Your task to perform on an android device: create a new album in the google photos Image 0: 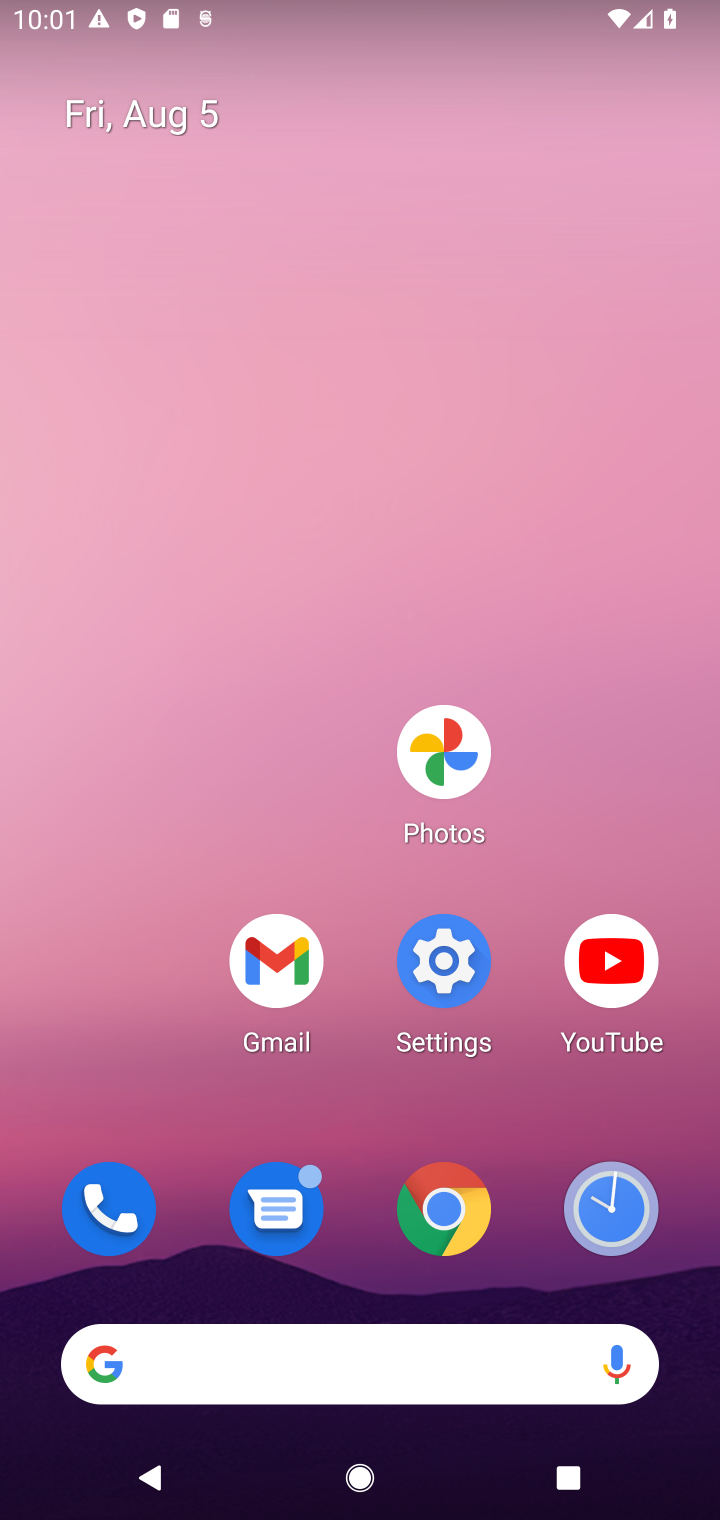
Step 0: drag from (394, 1189) to (446, 374)
Your task to perform on an android device: create a new album in the google photos Image 1: 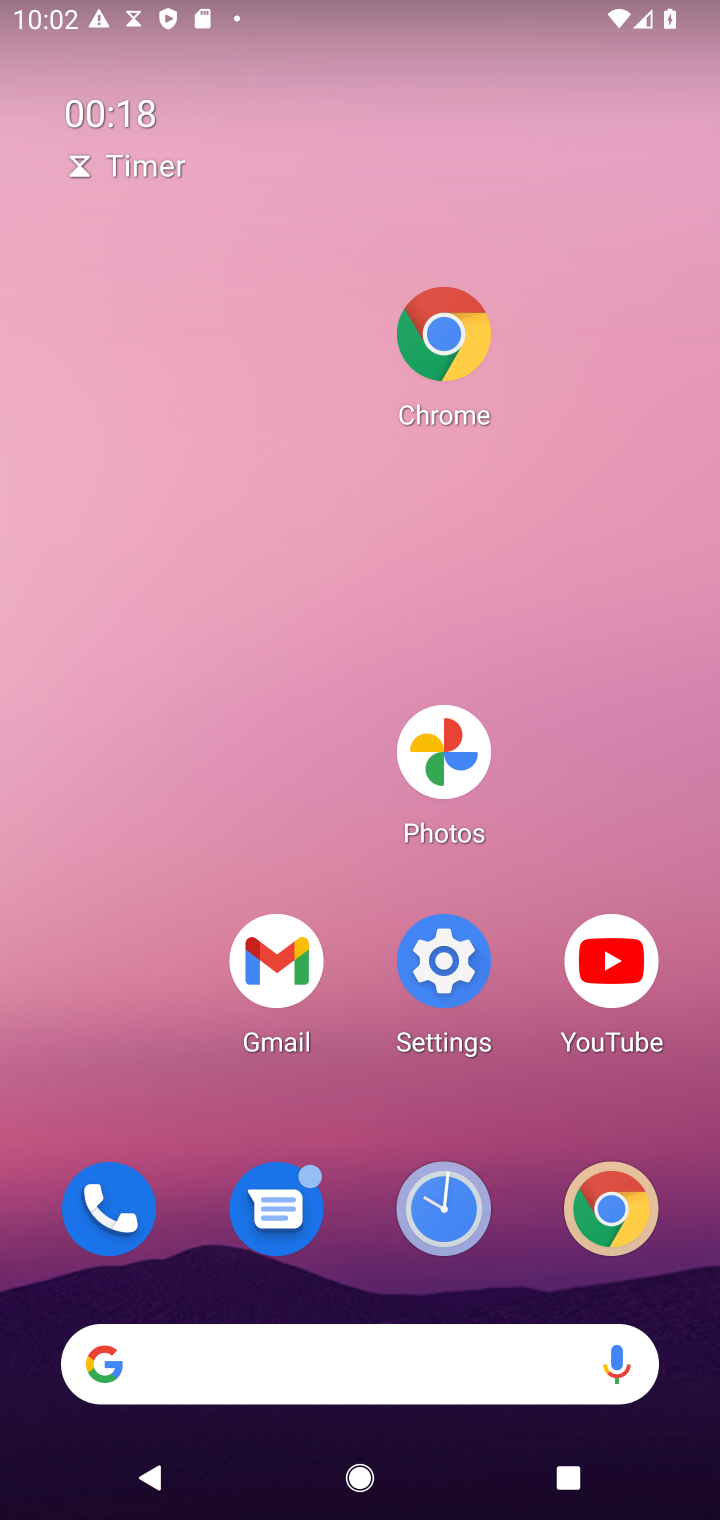
Step 1: drag from (372, 1093) to (385, 196)
Your task to perform on an android device: create a new album in the google photos Image 2: 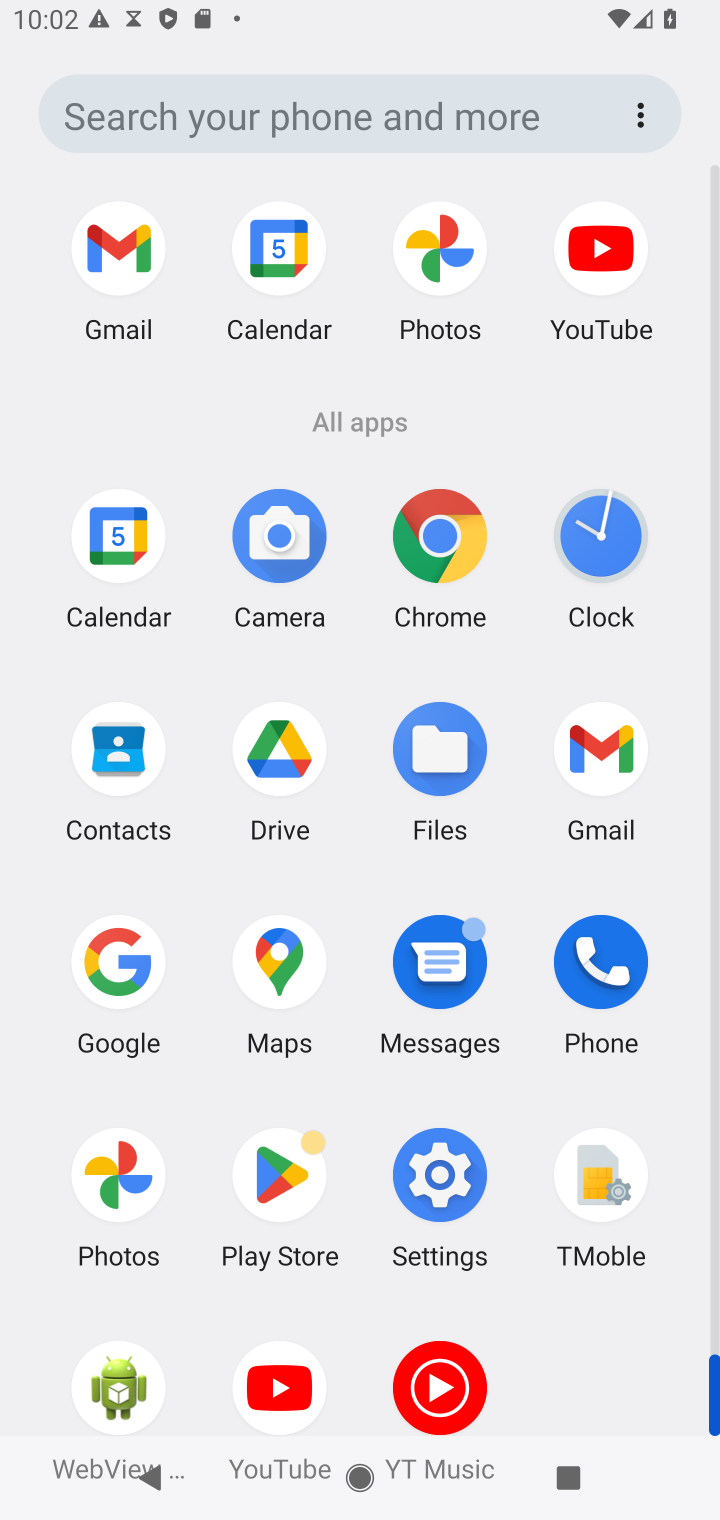
Step 2: drag from (359, 1290) to (343, 305)
Your task to perform on an android device: create a new album in the google photos Image 3: 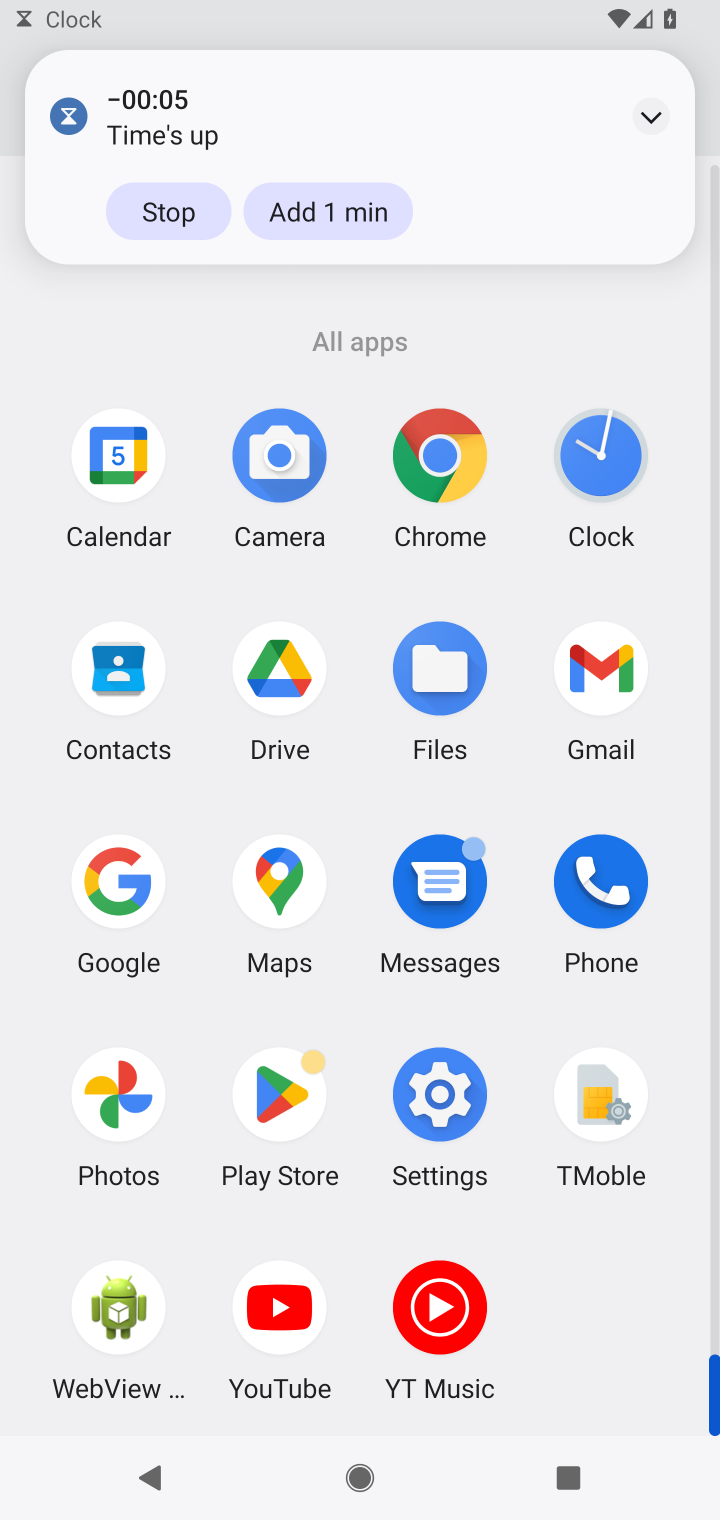
Step 3: click (146, 213)
Your task to perform on an android device: create a new album in the google photos Image 4: 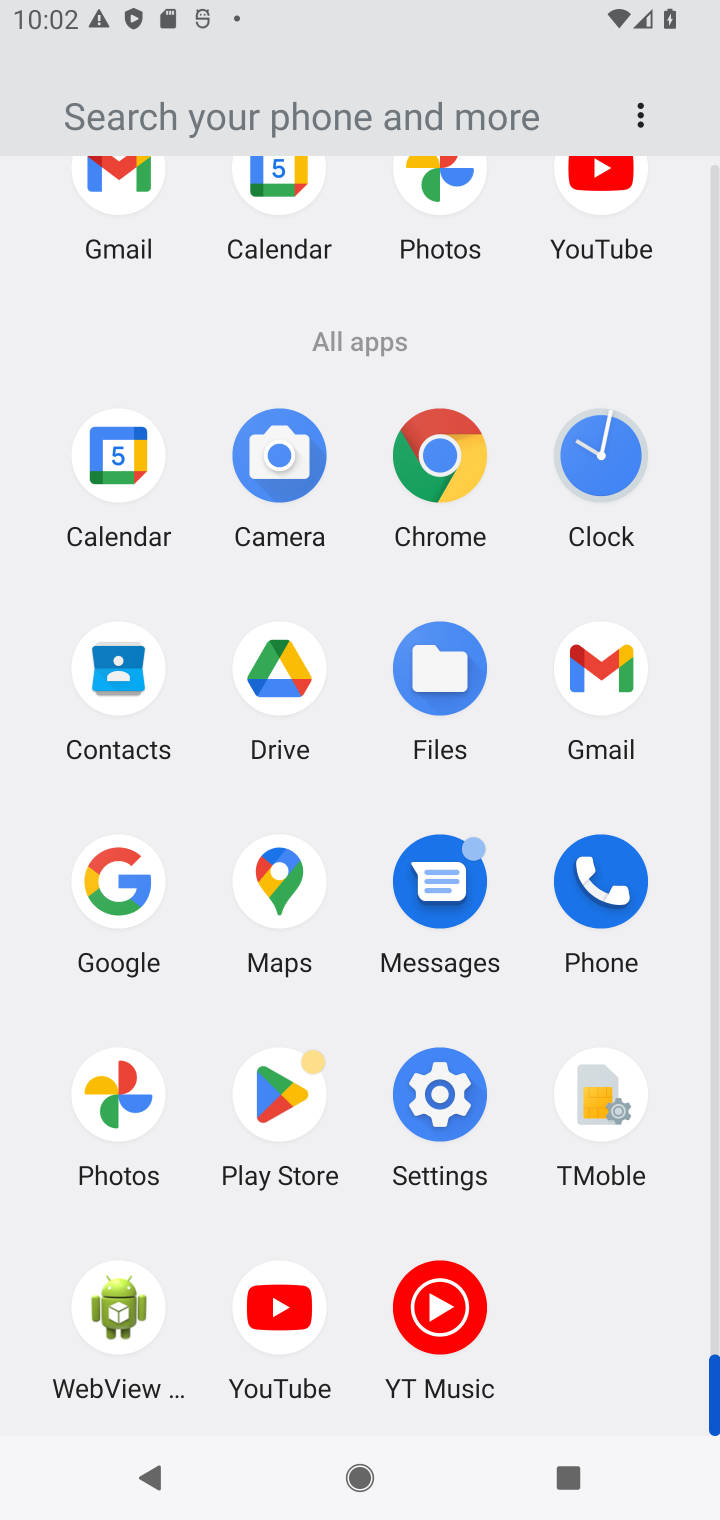
Step 4: drag from (344, 1148) to (569, 247)
Your task to perform on an android device: create a new album in the google photos Image 5: 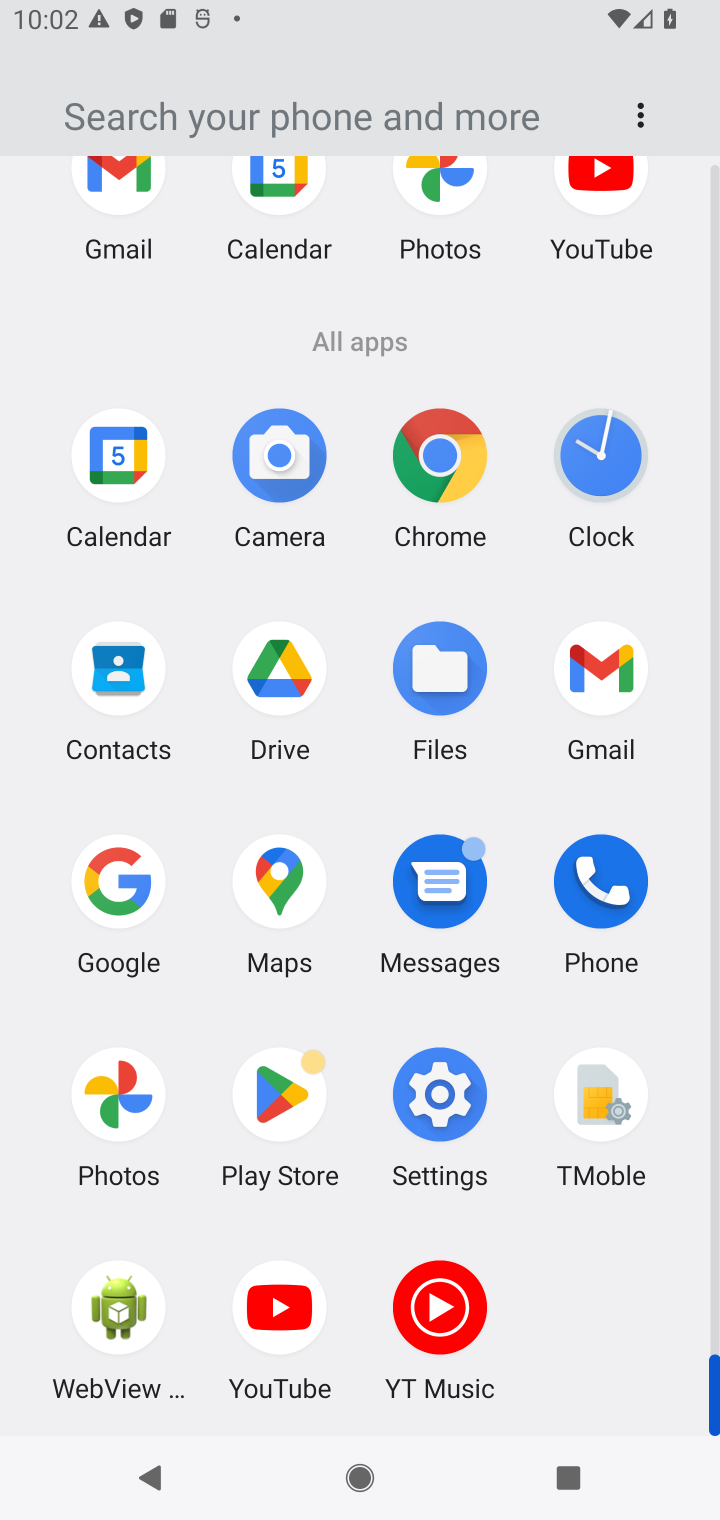
Step 5: click (118, 1111)
Your task to perform on an android device: create a new album in the google photos Image 6: 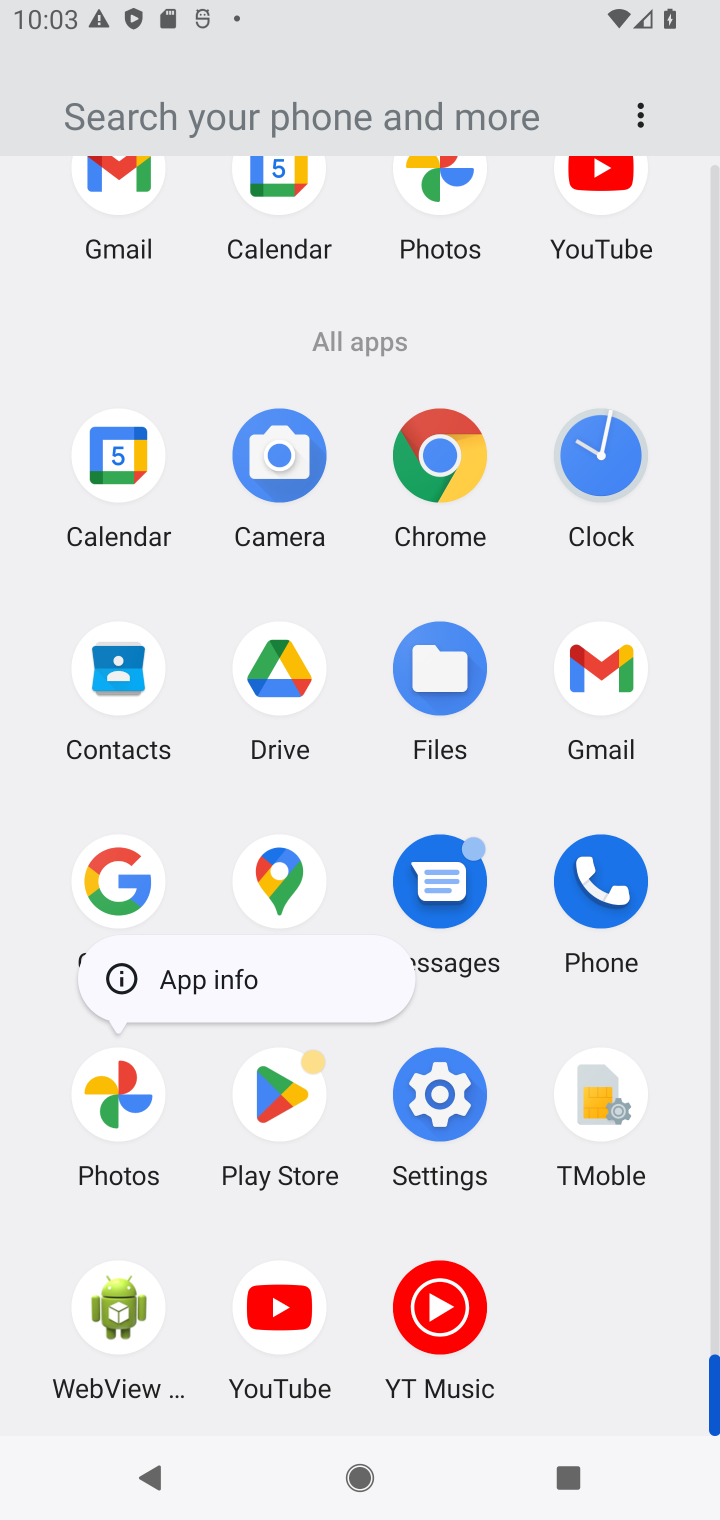
Step 6: click (142, 978)
Your task to perform on an android device: create a new album in the google photos Image 7: 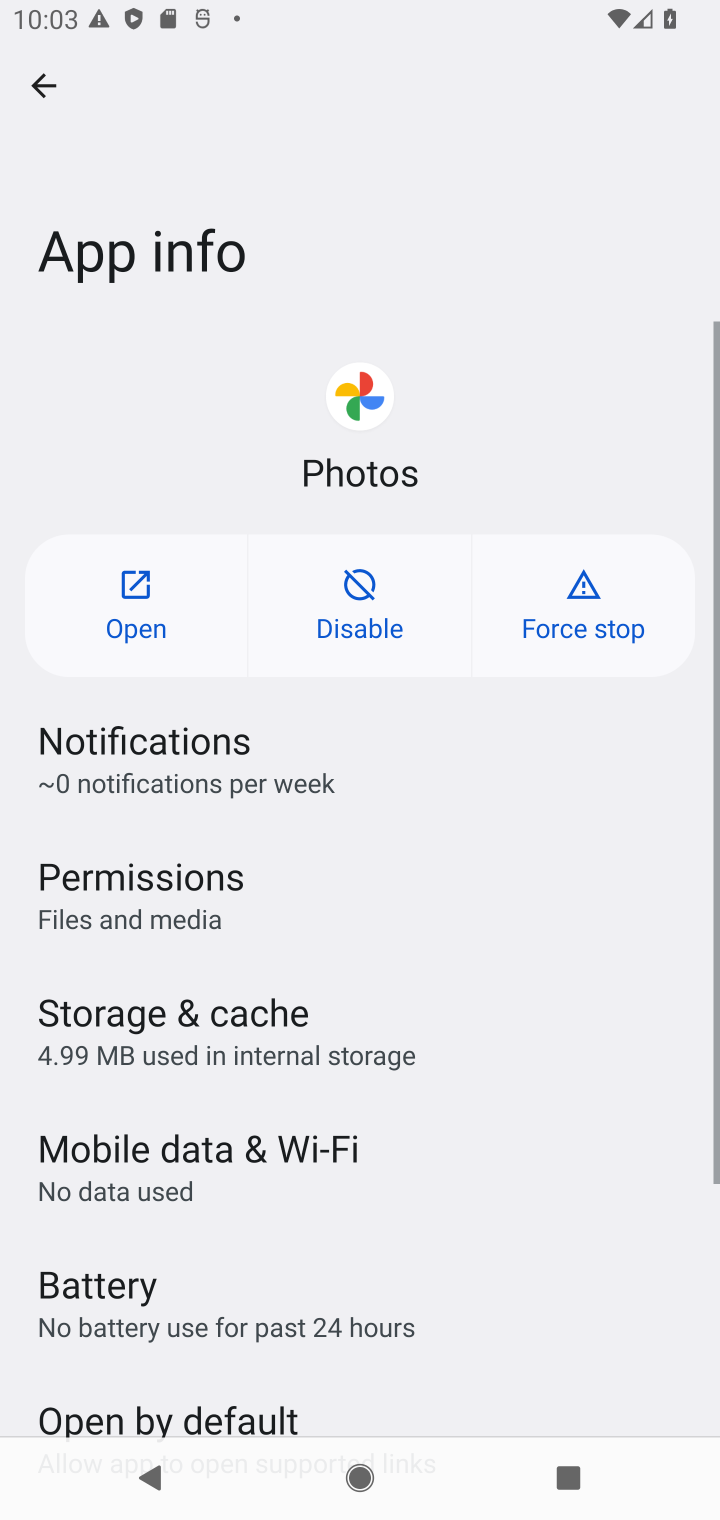
Step 7: click (130, 587)
Your task to perform on an android device: create a new album in the google photos Image 8: 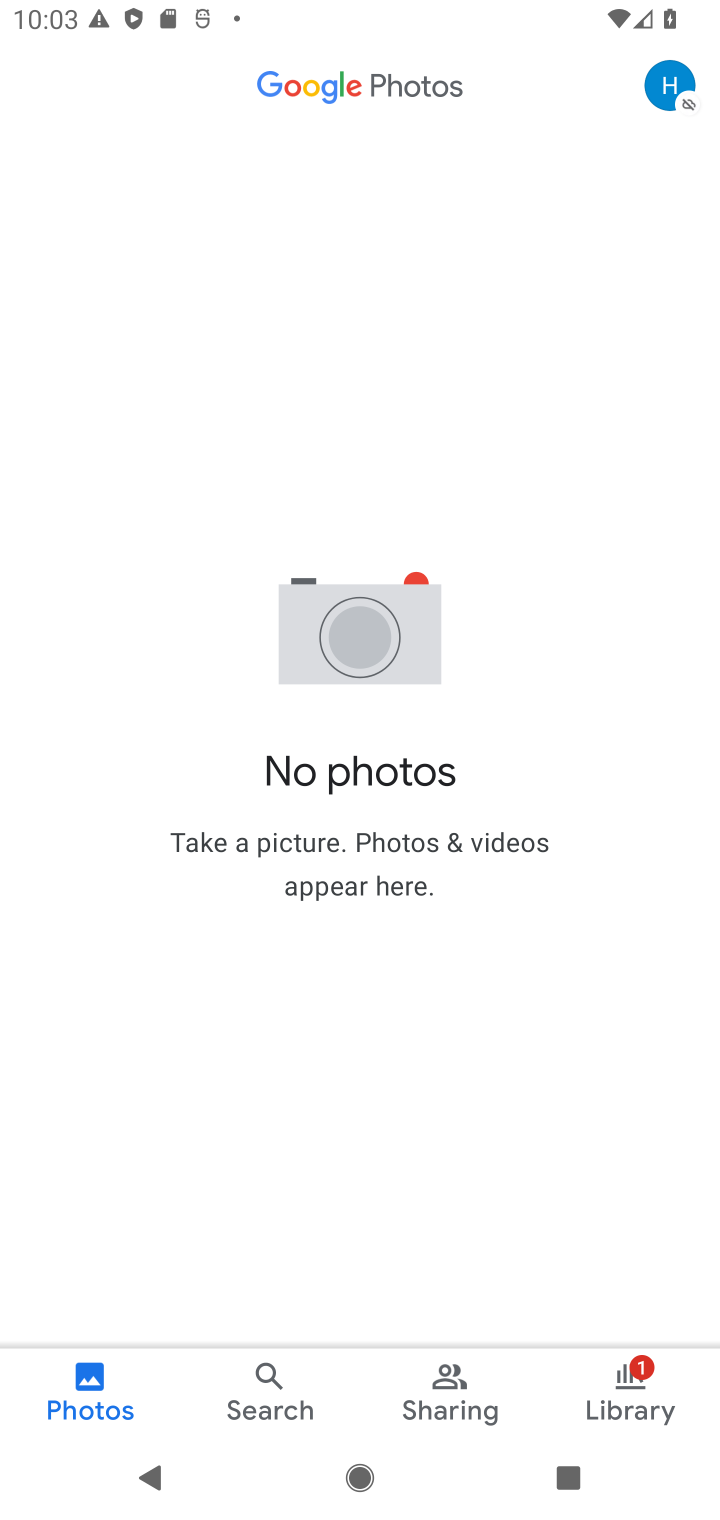
Step 8: drag from (424, 754) to (474, 574)
Your task to perform on an android device: create a new album in the google photos Image 9: 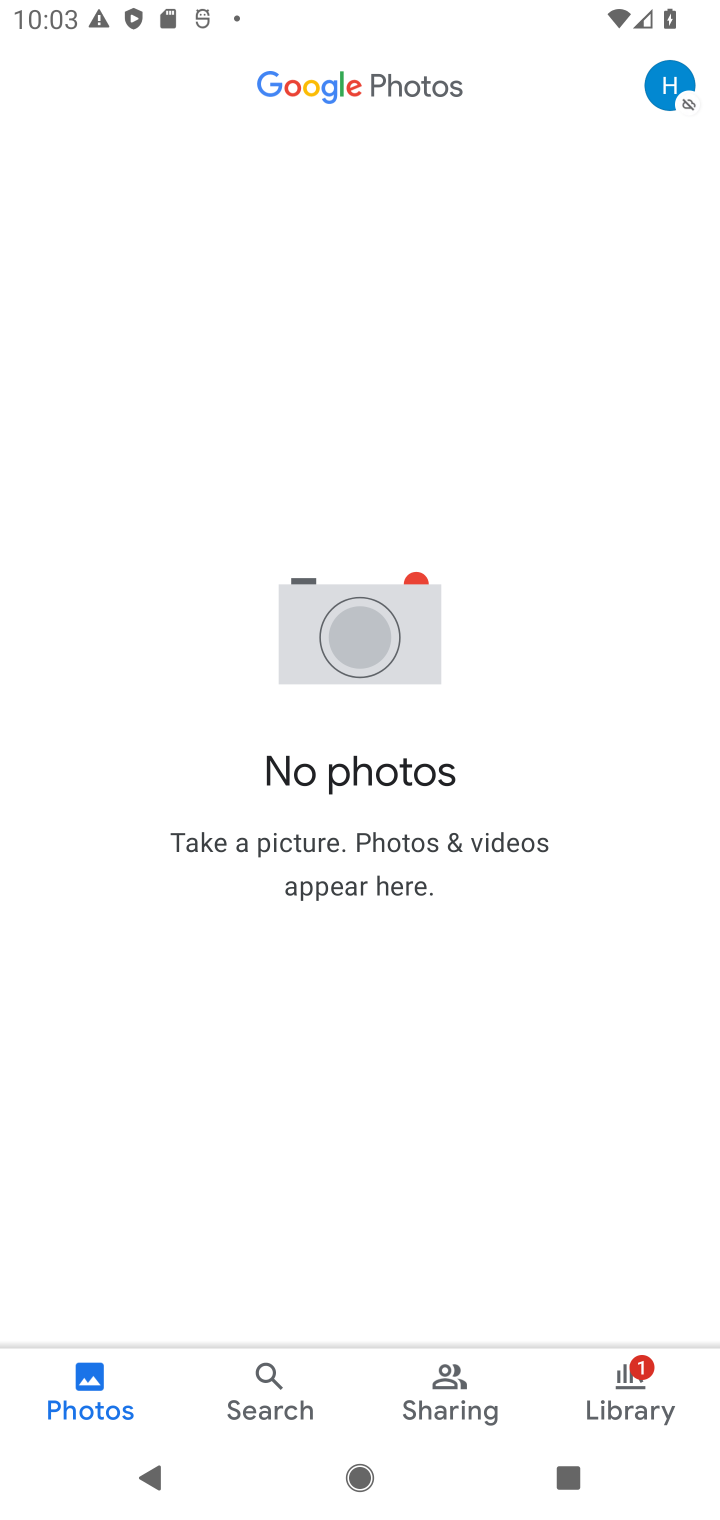
Step 9: drag from (235, 1227) to (356, 624)
Your task to perform on an android device: create a new album in the google photos Image 10: 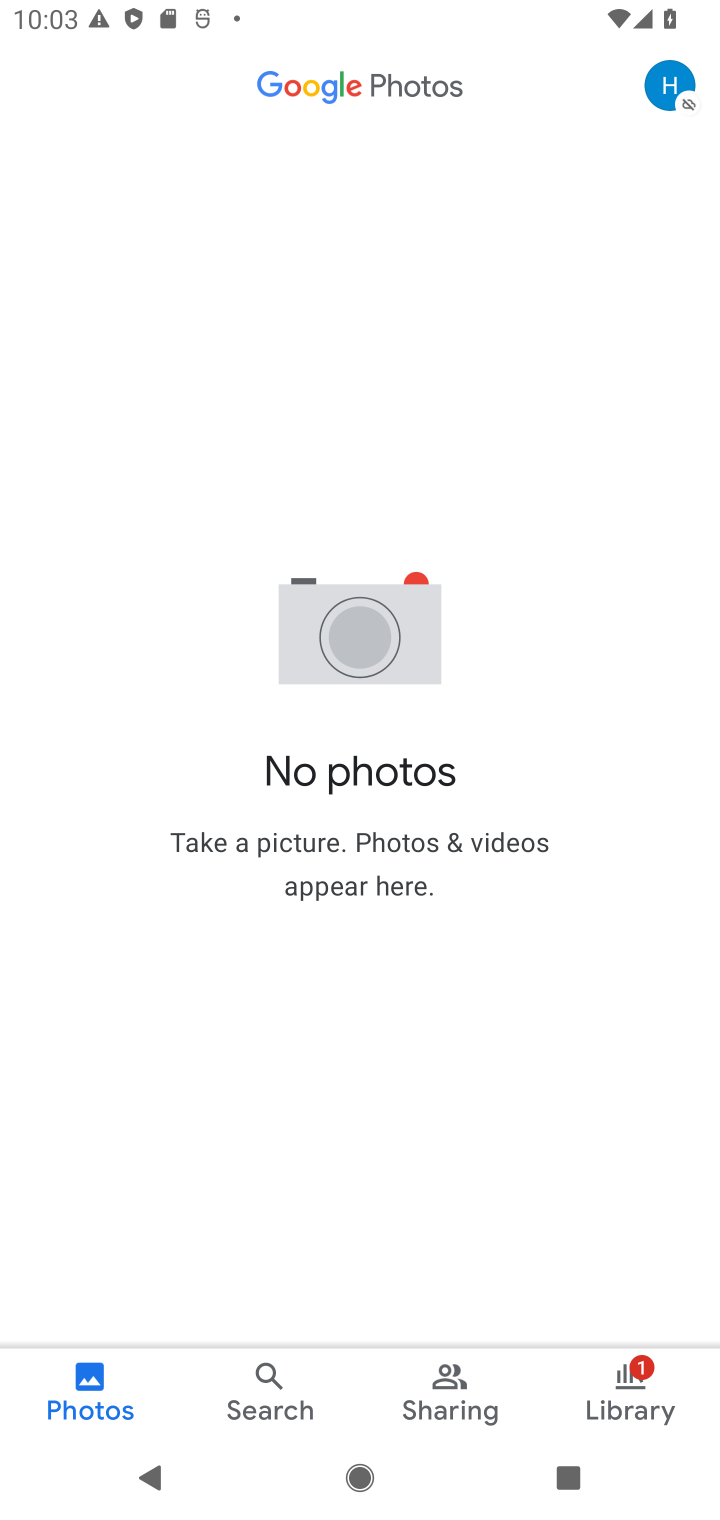
Step 10: click (623, 1381)
Your task to perform on an android device: create a new album in the google photos Image 11: 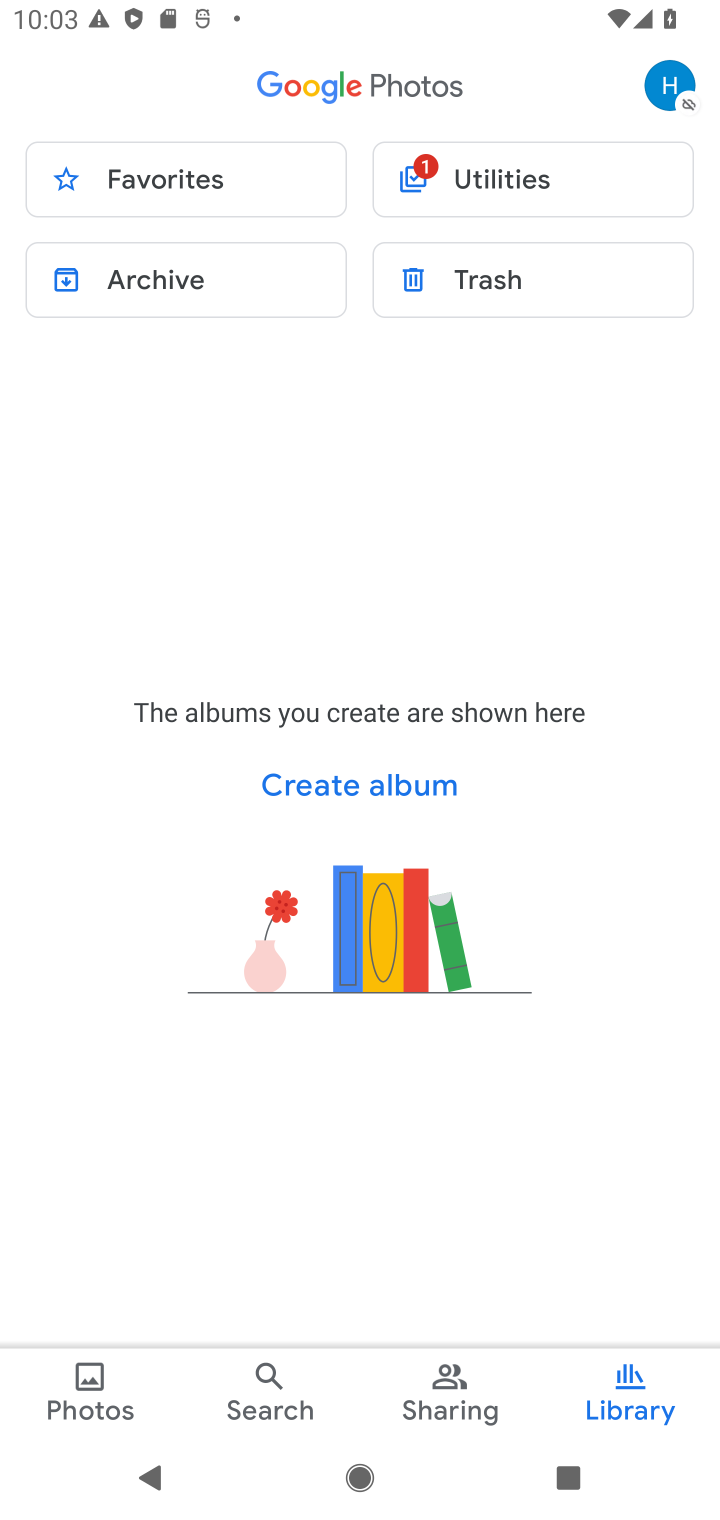
Step 11: click (557, 1381)
Your task to perform on an android device: create a new album in the google photos Image 12: 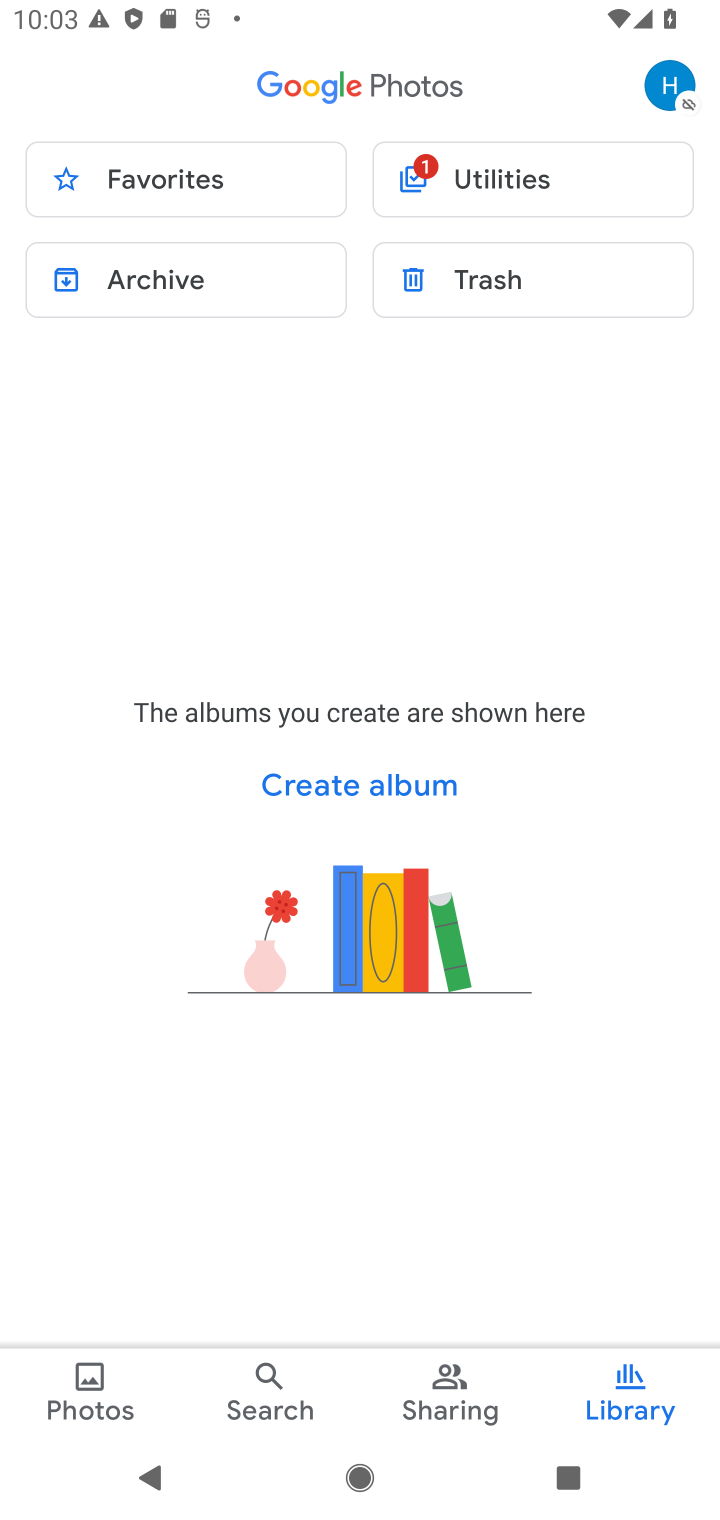
Step 12: click (385, 763)
Your task to perform on an android device: create a new album in the google photos Image 13: 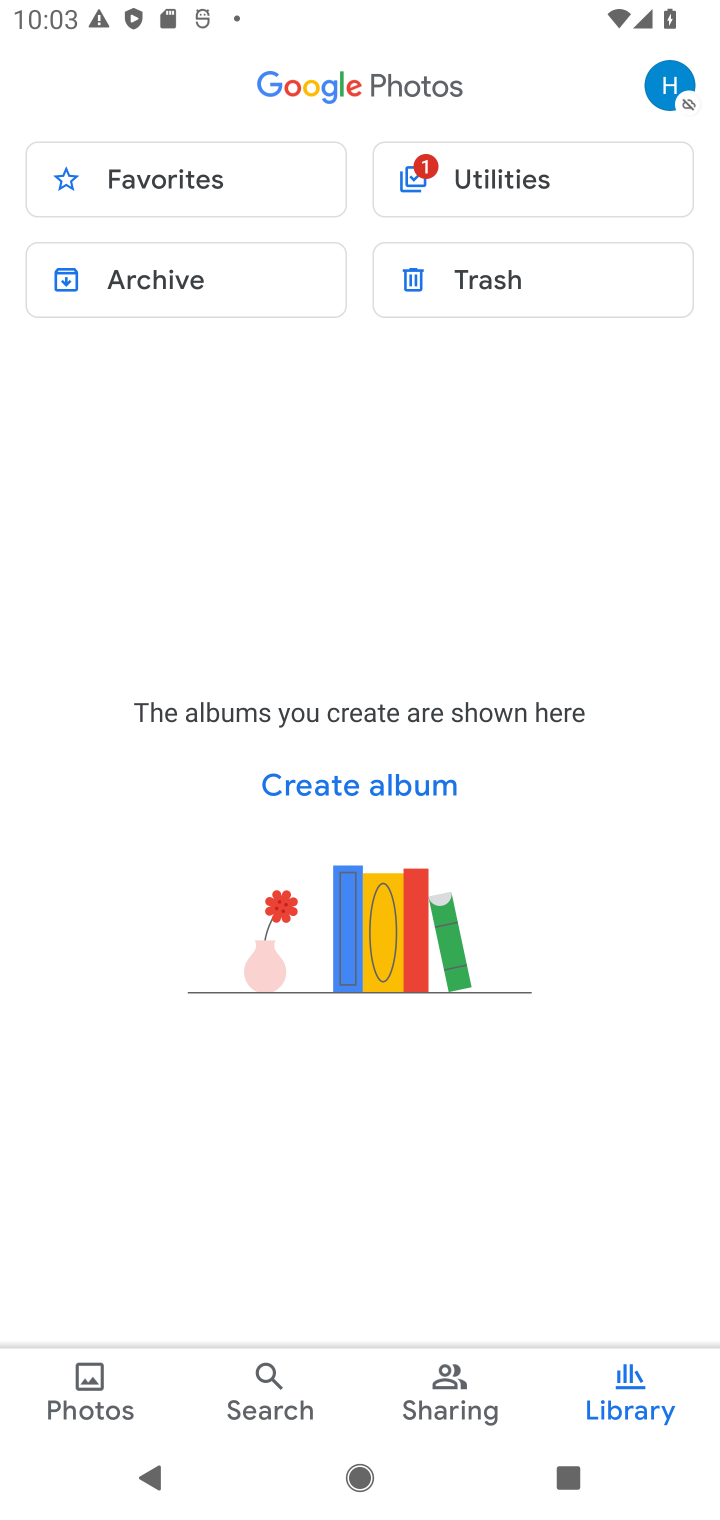
Step 13: click (356, 800)
Your task to perform on an android device: create a new album in the google photos Image 14: 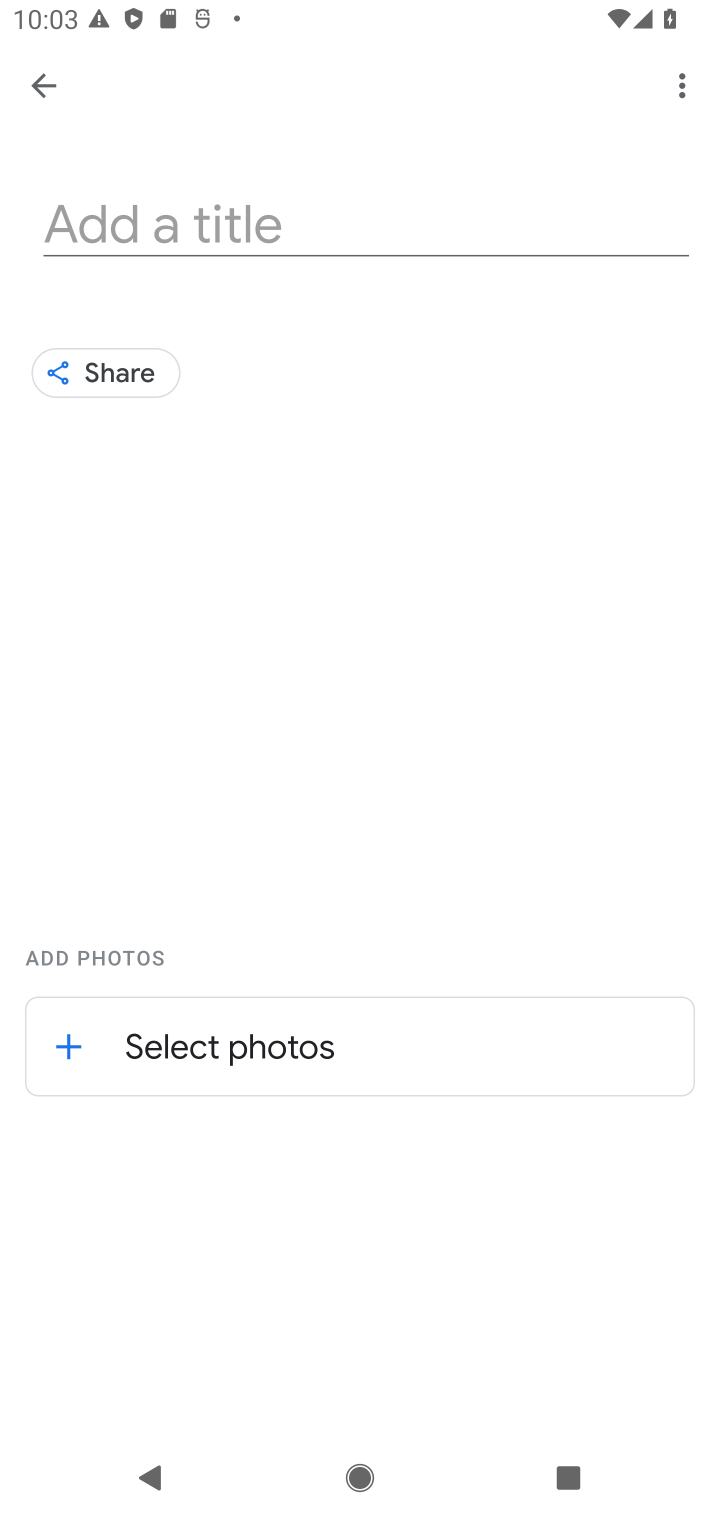
Step 14: click (188, 212)
Your task to perform on an android device: create a new album in the google photos Image 15: 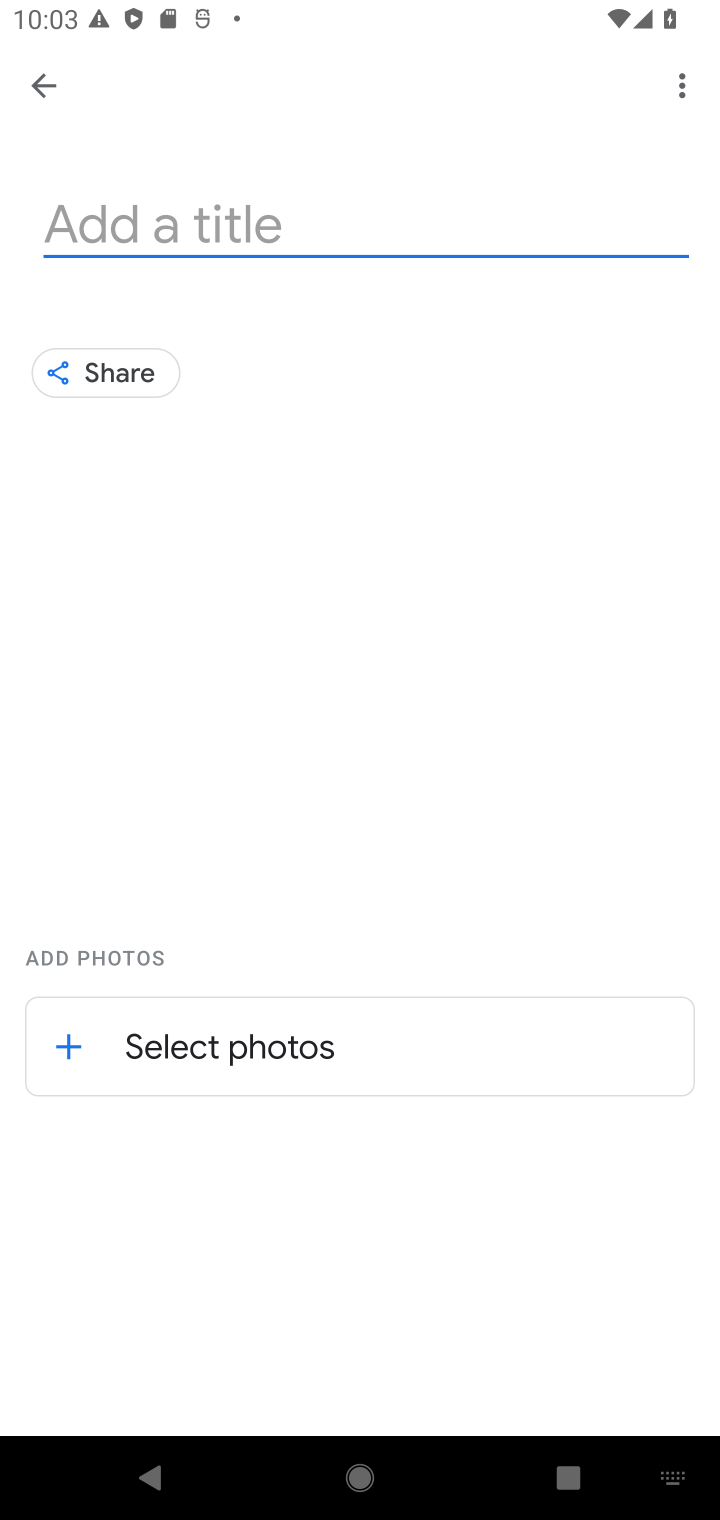
Step 15: type "mnjn"
Your task to perform on an android device: create a new album in the google photos Image 16: 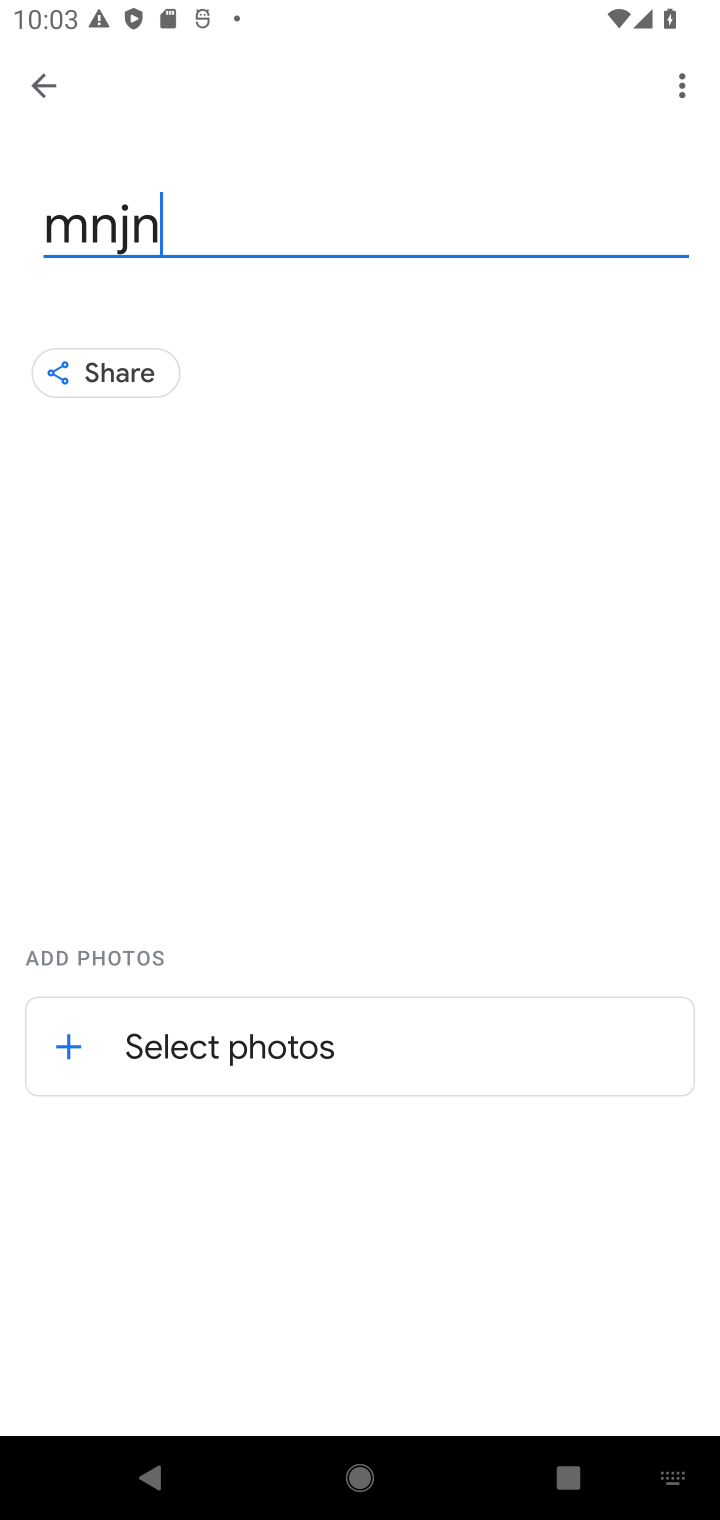
Step 16: click (70, 1047)
Your task to perform on an android device: create a new album in the google photos Image 17: 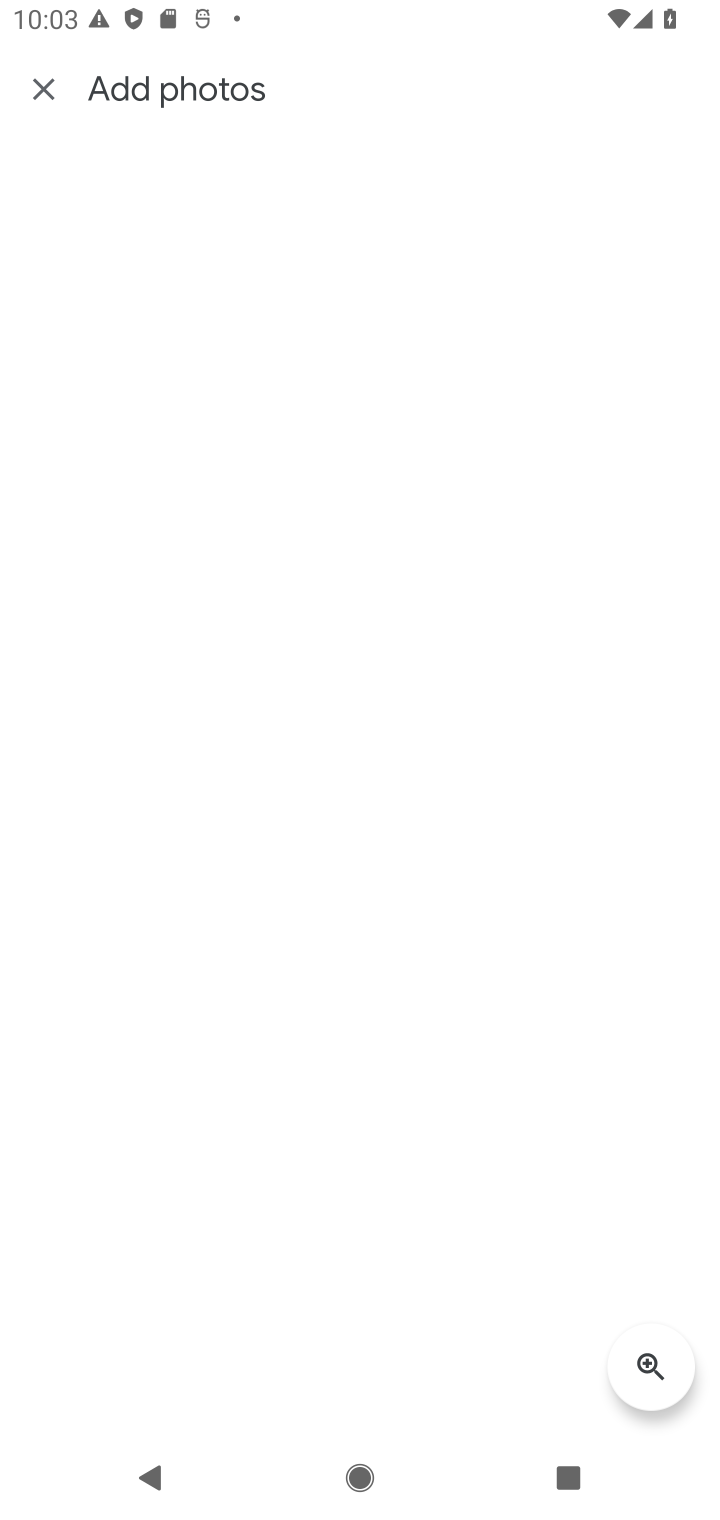
Step 17: task complete